Your task to perform on an android device: turn on translation in the chrome app Image 0: 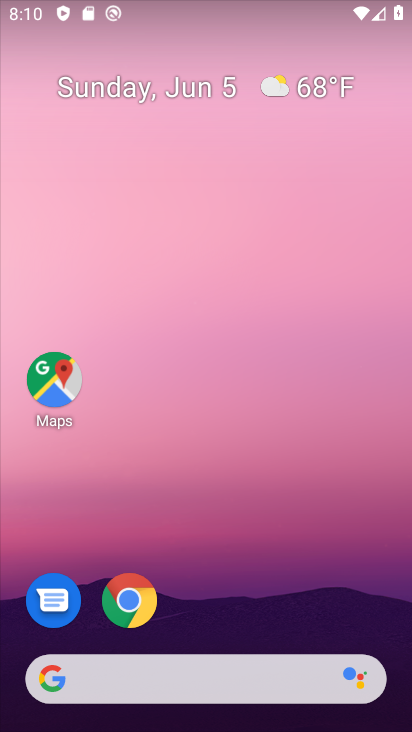
Step 0: click (124, 598)
Your task to perform on an android device: turn on translation in the chrome app Image 1: 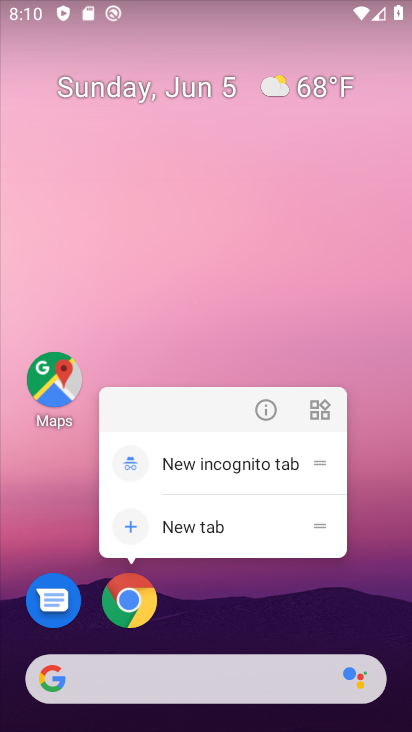
Step 1: click (131, 603)
Your task to perform on an android device: turn on translation in the chrome app Image 2: 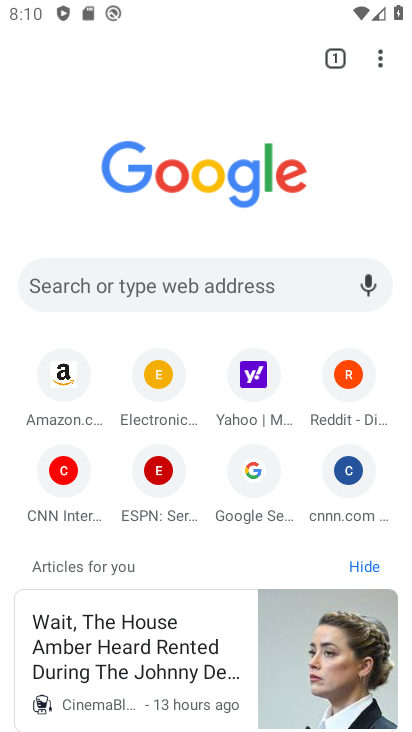
Step 2: click (373, 60)
Your task to perform on an android device: turn on translation in the chrome app Image 3: 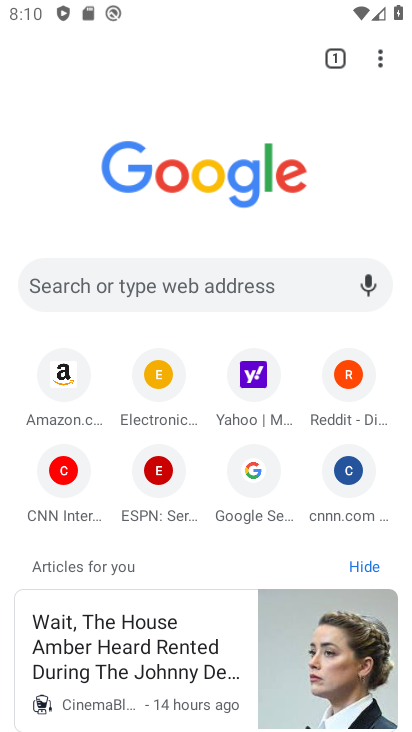
Step 3: click (375, 65)
Your task to perform on an android device: turn on translation in the chrome app Image 4: 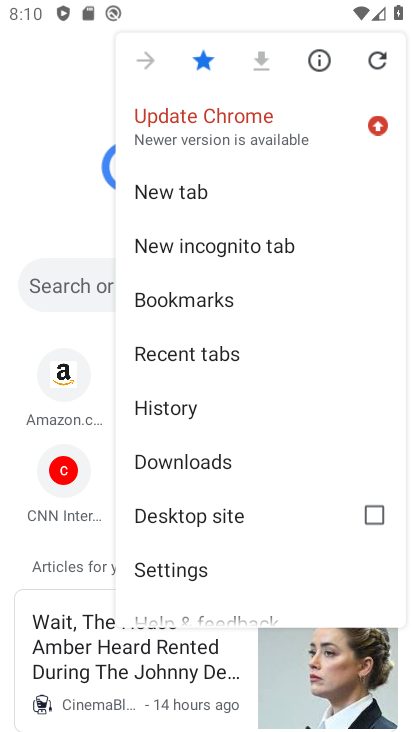
Step 4: click (192, 581)
Your task to perform on an android device: turn on translation in the chrome app Image 5: 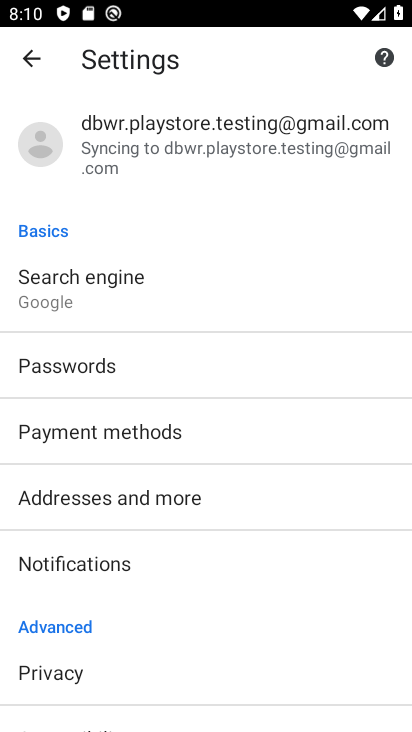
Step 5: drag from (146, 630) to (200, 232)
Your task to perform on an android device: turn on translation in the chrome app Image 6: 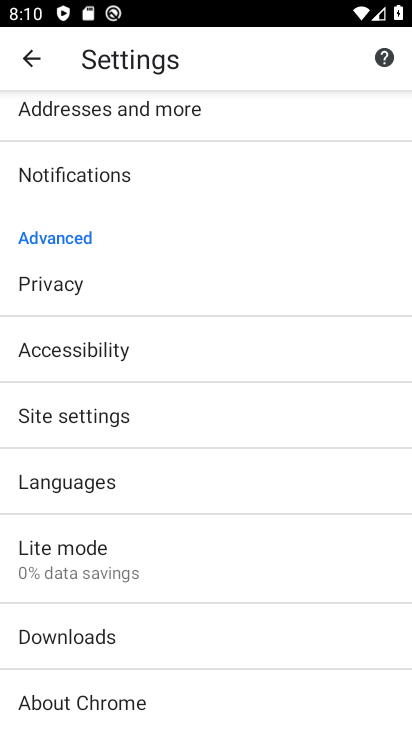
Step 6: click (113, 485)
Your task to perform on an android device: turn on translation in the chrome app Image 7: 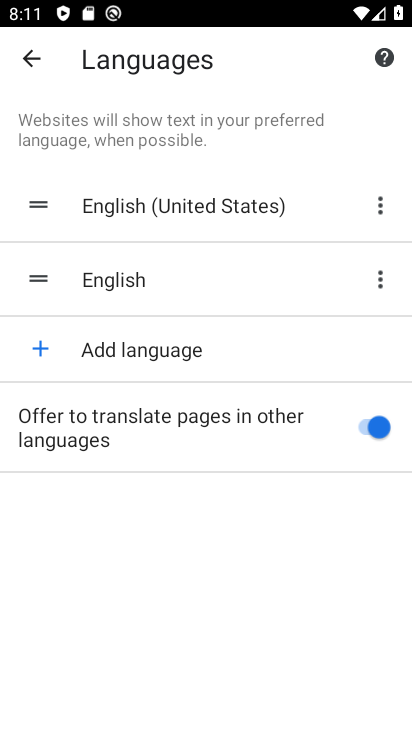
Step 7: task complete